Your task to perform on an android device: Clear the shopping cart on walmart. Image 0: 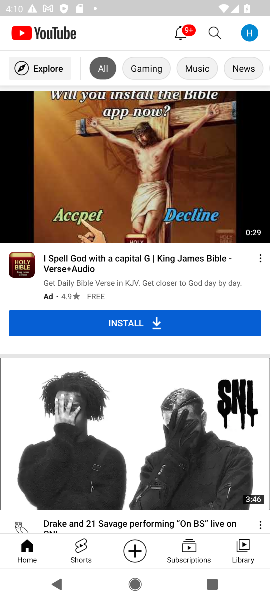
Step 0: press home button
Your task to perform on an android device: Clear the shopping cart on walmart. Image 1: 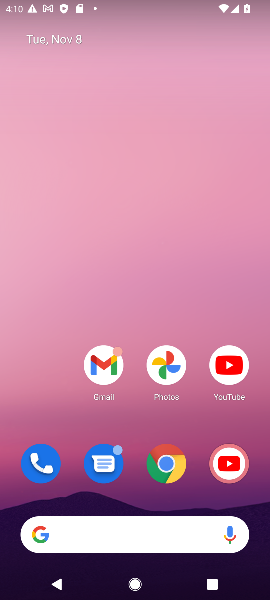
Step 1: click (173, 469)
Your task to perform on an android device: Clear the shopping cart on walmart. Image 2: 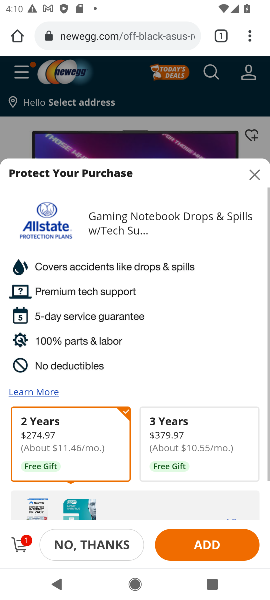
Step 2: click (148, 33)
Your task to perform on an android device: Clear the shopping cart on walmart. Image 3: 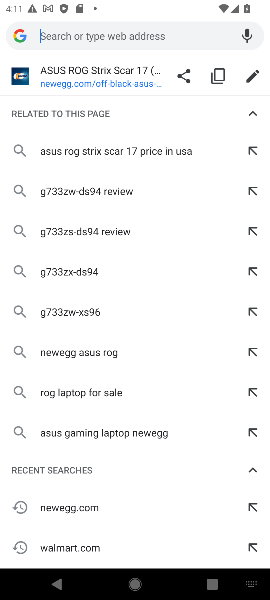
Step 3: type "walmart"
Your task to perform on an android device: Clear the shopping cart on walmart. Image 4: 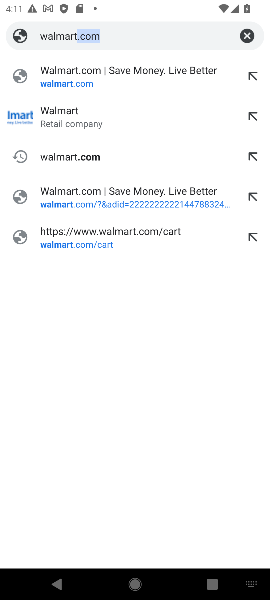
Step 4: click (65, 74)
Your task to perform on an android device: Clear the shopping cart on walmart. Image 5: 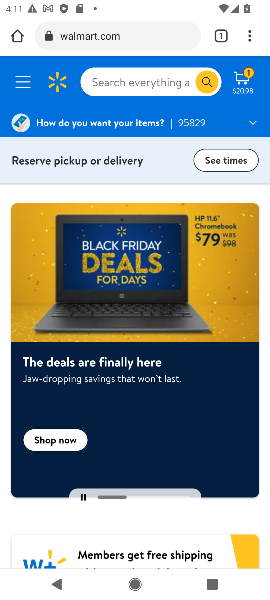
Step 5: click (247, 82)
Your task to perform on an android device: Clear the shopping cart on walmart. Image 6: 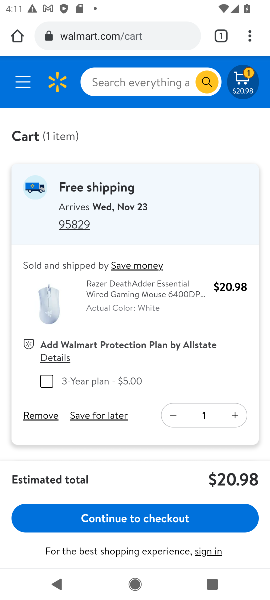
Step 6: click (45, 412)
Your task to perform on an android device: Clear the shopping cart on walmart. Image 7: 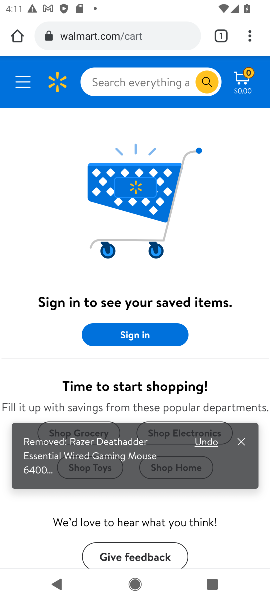
Step 7: task complete